Your task to perform on an android device: View the shopping cart on target.com. Search for bose quietcomfort 35 on target.com, select the first entry, add it to the cart, then select checkout. Image 0: 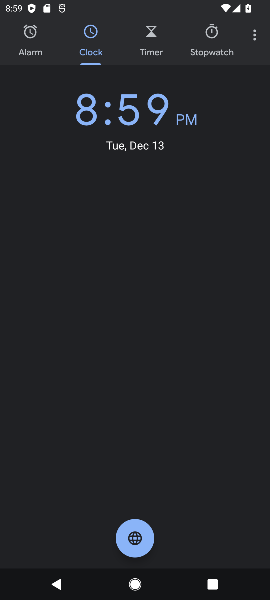
Step 0: press home button
Your task to perform on an android device: View the shopping cart on target.com. Search for bose quietcomfort 35 on target.com, select the first entry, add it to the cart, then select checkout. Image 1: 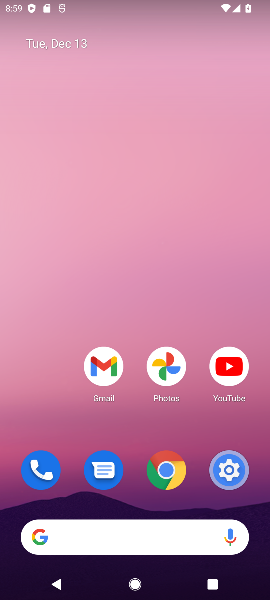
Step 1: click (64, 537)
Your task to perform on an android device: View the shopping cart on target.com. Search for bose quietcomfort 35 on target.com, select the first entry, add it to the cart, then select checkout. Image 2: 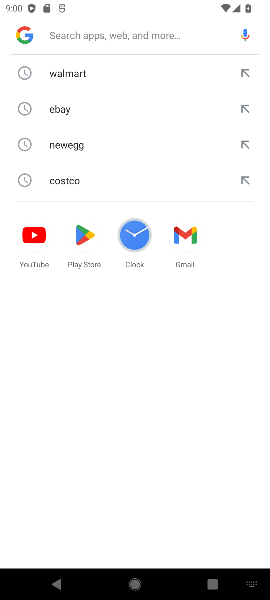
Step 2: type "arget.com"
Your task to perform on an android device: View the shopping cart on target.com. Search for bose quietcomfort 35 on target.com, select the first entry, add it to the cart, then select checkout. Image 3: 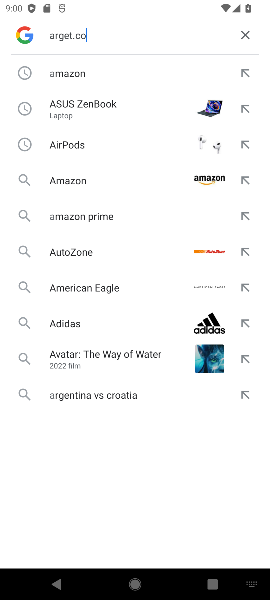
Step 3: press enter
Your task to perform on an android device: View the shopping cart on target.com. Search for bose quietcomfort 35 on target.com, select the first entry, add it to the cart, then select checkout. Image 4: 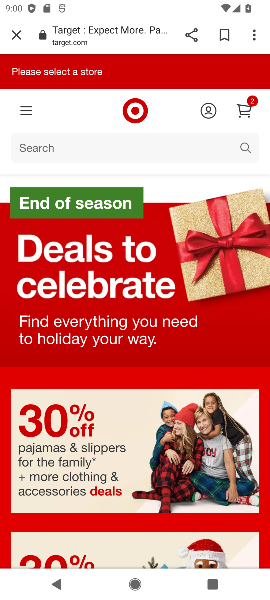
Step 4: click (239, 106)
Your task to perform on an android device: View the shopping cart on target.com. Search for bose quietcomfort 35 on target.com, select the first entry, add it to the cart, then select checkout. Image 5: 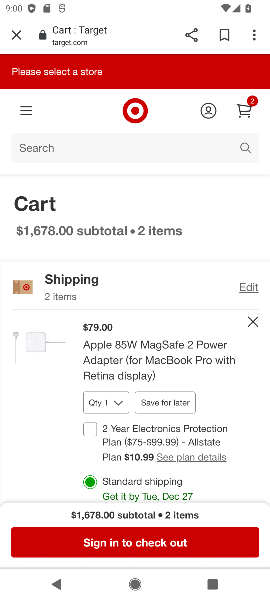
Step 5: click (253, 320)
Your task to perform on an android device: View the shopping cart on target.com. Search for bose quietcomfort 35 on target.com, select the first entry, add it to the cart, then select checkout. Image 6: 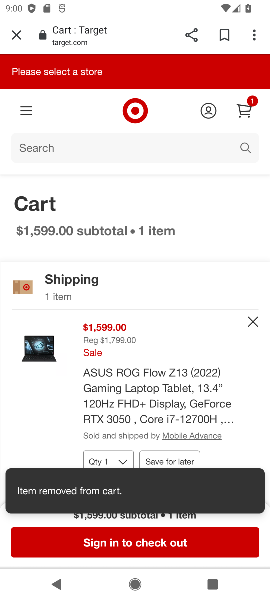
Step 6: click (249, 317)
Your task to perform on an android device: View the shopping cart on target.com. Search for bose quietcomfort 35 on target.com, select the first entry, add it to the cart, then select checkout. Image 7: 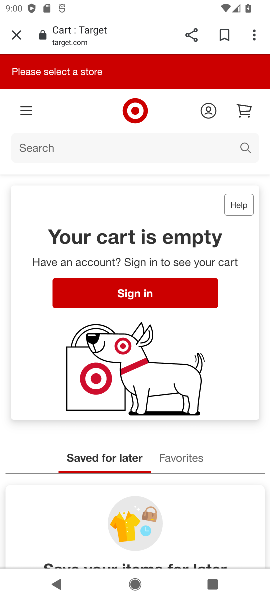
Step 7: click (43, 145)
Your task to perform on an android device: View the shopping cart on target.com. Search for bose quietcomfort 35 on target.com, select the first entry, add it to the cart, then select checkout. Image 8: 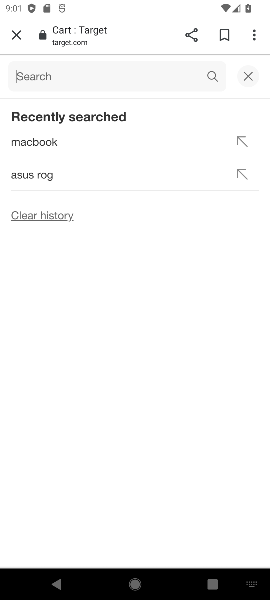
Step 8: type "bose quietcomfort 35"
Your task to perform on an android device: View the shopping cart on target.com. Search for bose quietcomfort 35 on target.com, select the first entry, add it to the cart, then select checkout. Image 9: 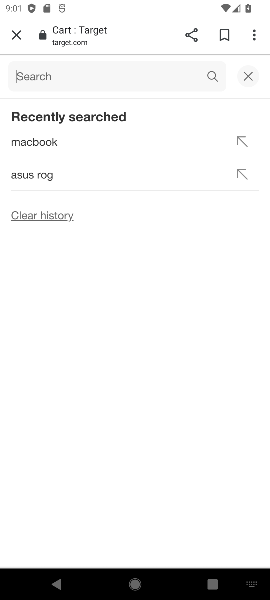
Step 9: press enter
Your task to perform on an android device: View the shopping cart on target.com. Search for bose quietcomfort 35 on target.com, select the first entry, add it to the cart, then select checkout. Image 10: 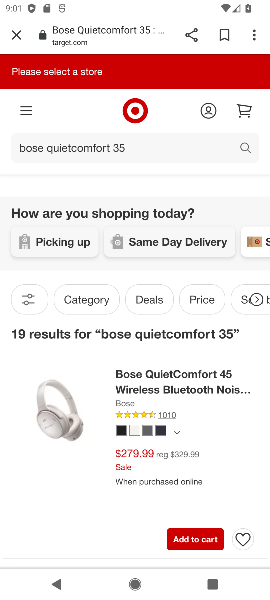
Step 10: click (178, 540)
Your task to perform on an android device: View the shopping cart on target.com. Search for bose quietcomfort 35 on target.com, select the first entry, add it to the cart, then select checkout. Image 11: 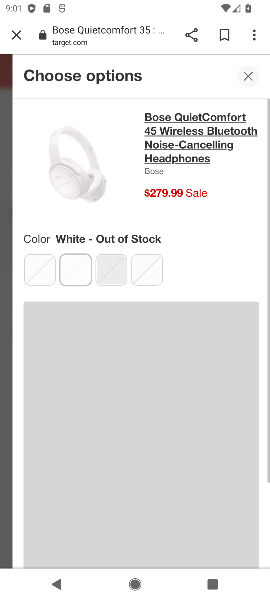
Step 11: drag from (146, 542) to (155, 179)
Your task to perform on an android device: View the shopping cart on target.com. Search for bose quietcomfort 35 on target.com, select the first entry, add it to the cart, then select checkout. Image 12: 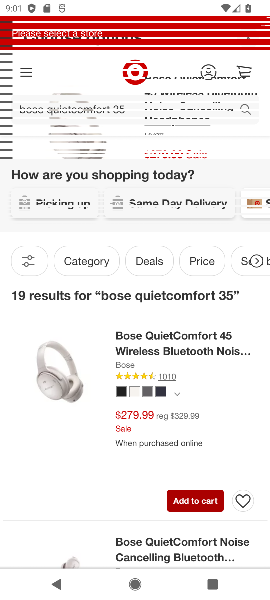
Step 12: drag from (124, 485) to (135, 234)
Your task to perform on an android device: View the shopping cart on target.com. Search for bose quietcomfort 35 on target.com, select the first entry, add it to the cart, then select checkout. Image 13: 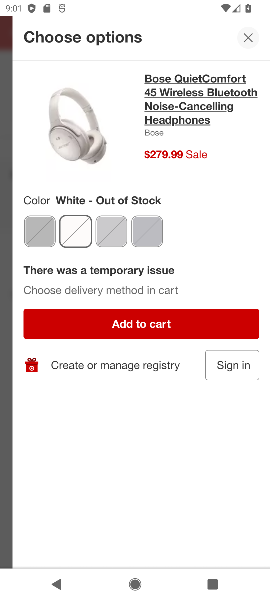
Step 13: click (148, 329)
Your task to perform on an android device: View the shopping cart on target.com. Search for bose quietcomfort 35 on target.com, select the first entry, add it to the cart, then select checkout. Image 14: 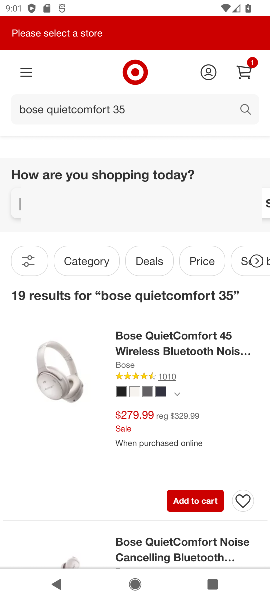
Step 14: task complete